Your task to perform on an android device: Search for sushi restaurants on Maps Image 0: 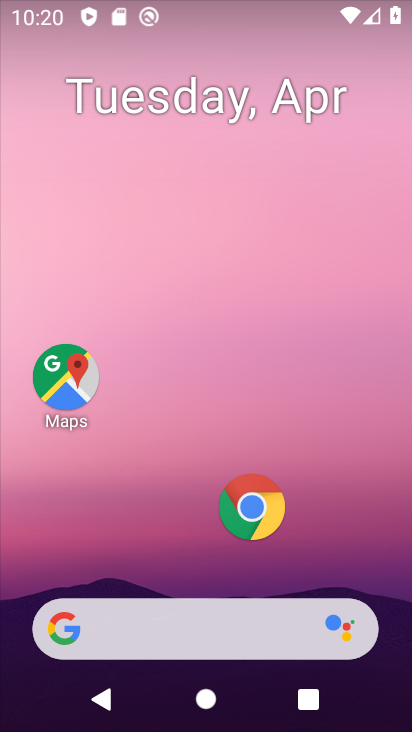
Step 0: click (68, 374)
Your task to perform on an android device: Search for sushi restaurants on Maps Image 1: 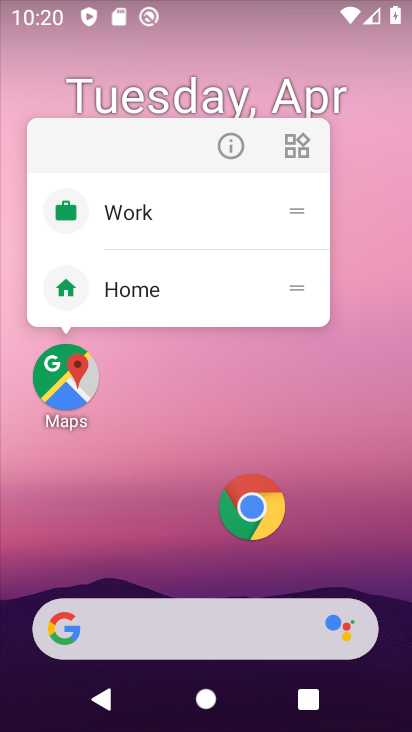
Step 1: click (69, 372)
Your task to perform on an android device: Search for sushi restaurants on Maps Image 2: 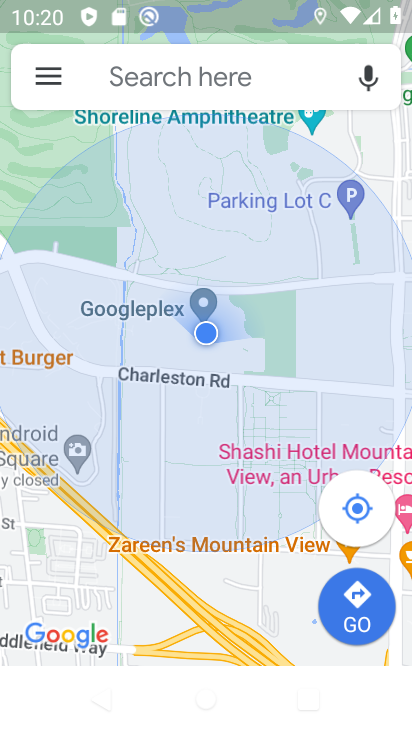
Step 2: click (202, 67)
Your task to perform on an android device: Search for sushi restaurants on Maps Image 3: 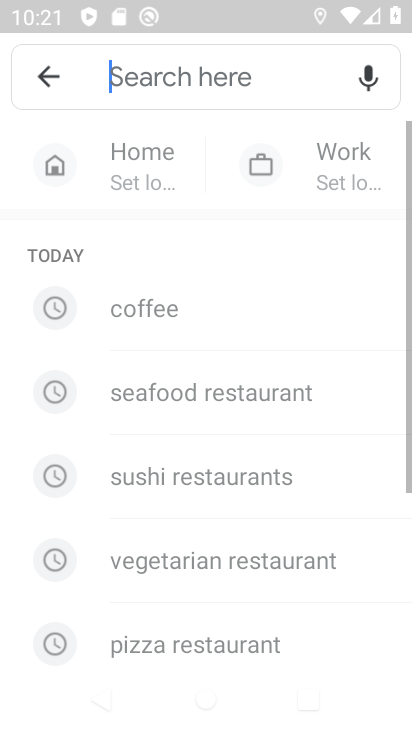
Step 3: click (197, 101)
Your task to perform on an android device: Search for sushi restaurants on Maps Image 4: 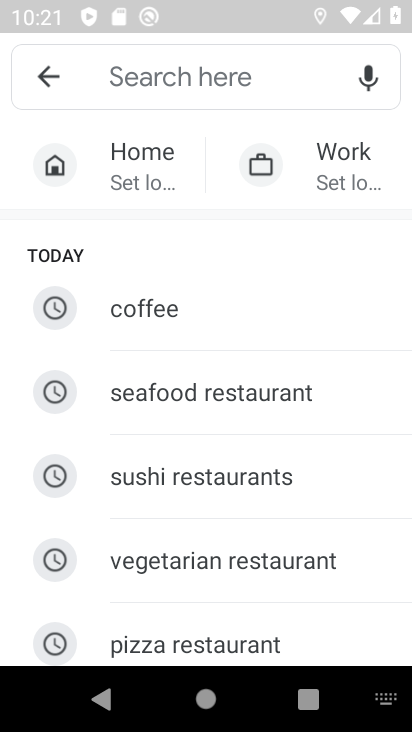
Step 4: click (161, 473)
Your task to perform on an android device: Search for sushi restaurants on Maps Image 5: 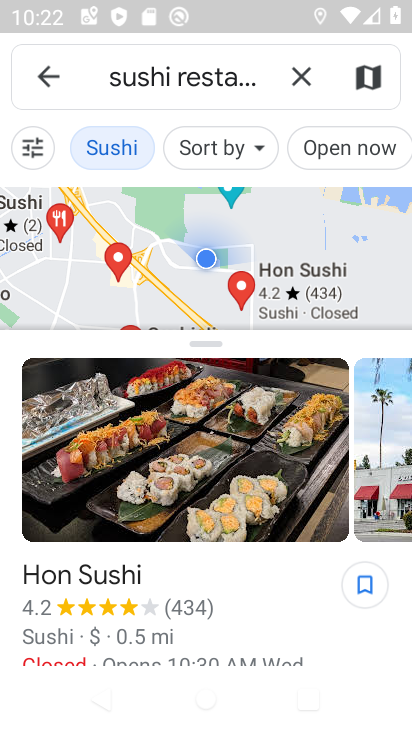
Step 5: task complete